Your task to perform on an android device: Show me popular games on the Play Store Image 0: 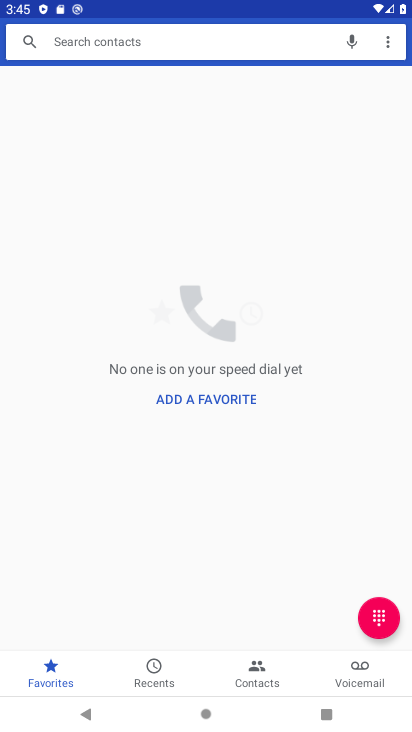
Step 0: press home button
Your task to perform on an android device: Show me popular games on the Play Store Image 1: 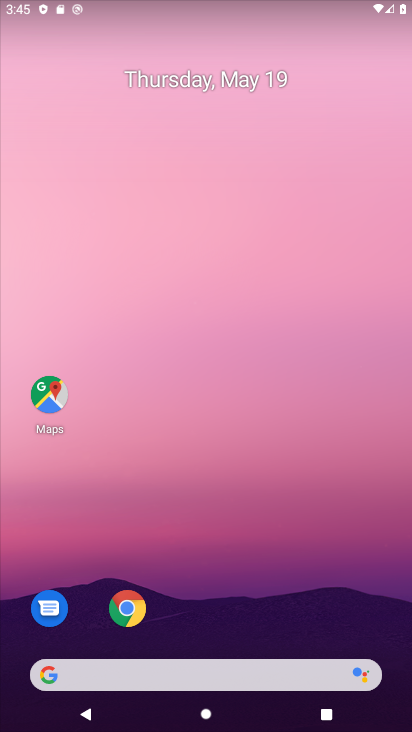
Step 1: drag from (219, 723) to (219, 189)
Your task to perform on an android device: Show me popular games on the Play Store Image 2: 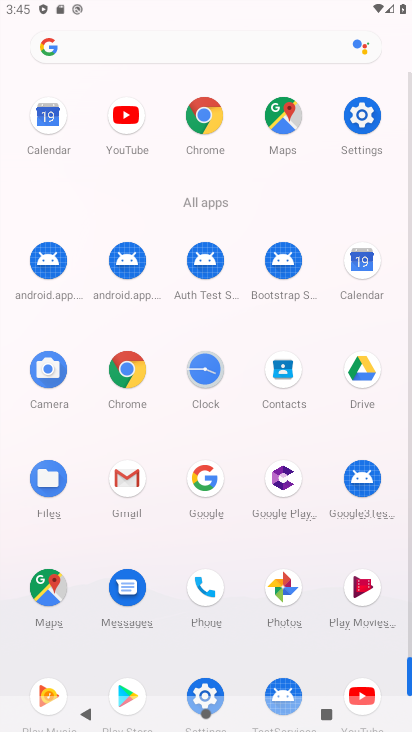
Step 2: drag from (233, 642) to (234, 284)
Your task to perform on an android device: Show me popular games on the Play Store Image 3: 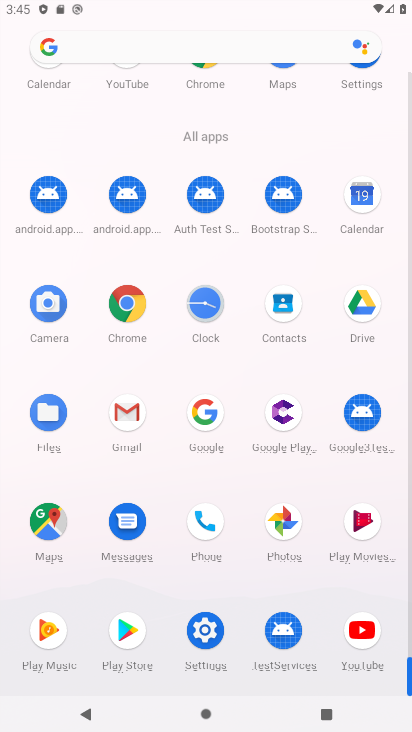
Step 3: click (126, 637)
Your task to perform on an android device: Show me popular games on the Play Store Image 4: 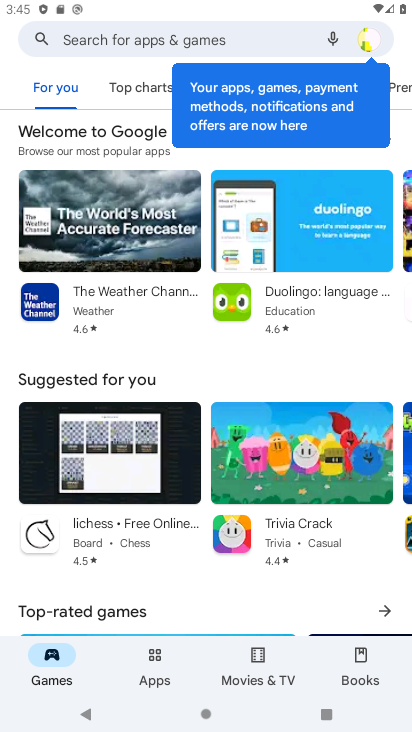
Step 4: drag from (202, 588) to (202, 268)
Your task to perform on an android device: Show me popular games on the Play Store Image 5: 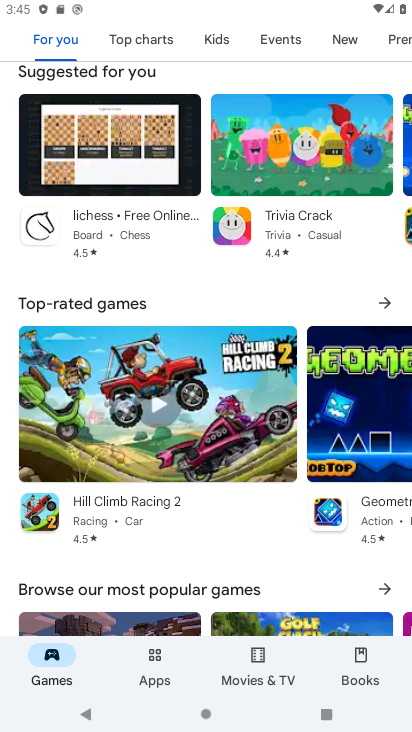
Step 5: drag from (211, 569) to (216, 178)
Your task to perform on an android device: Show me popular games on the Play Store Image 6: 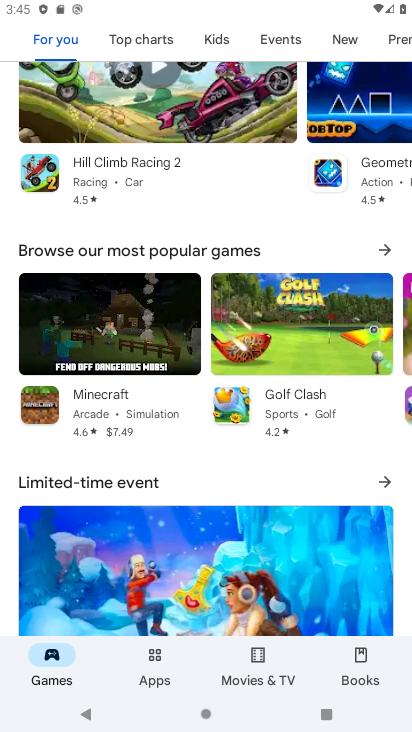
Step 6: click (384, 252)
Your task to perform on an android device: Show me popular games on the Play Store Image 7: 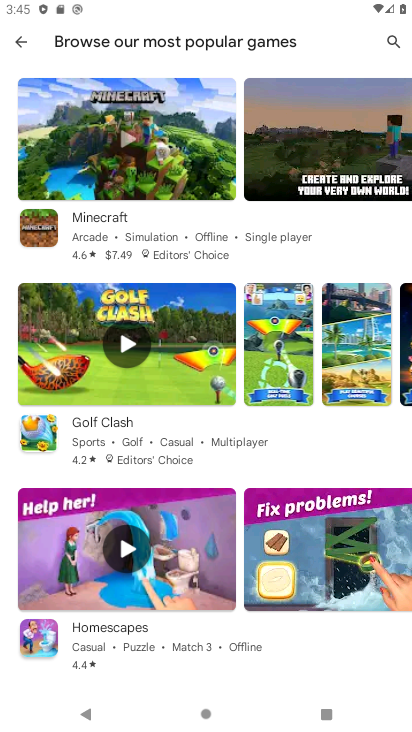
Step 7: task complete